Your task to perform on an android device: Toggle the flashlight Image 0: 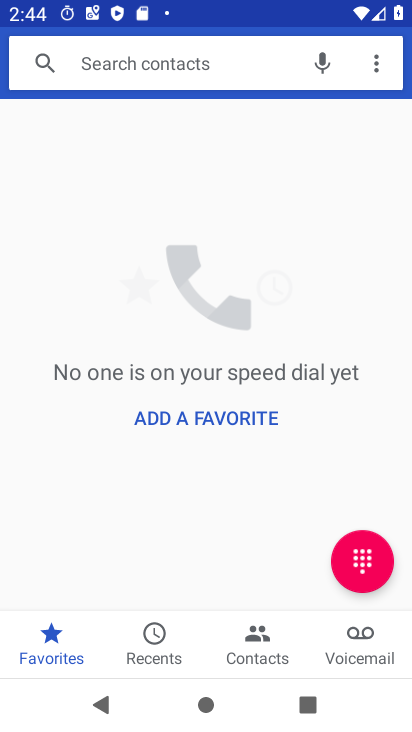
Step 0: press home button
Your task to perform on an android device: Toggle the flashlight Image 1: 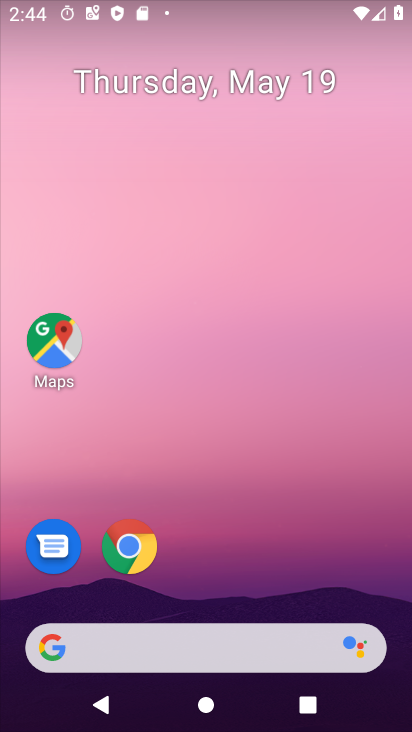
Step 1: drag from (181, 596) to (291, 103)
Your task to perform on an android device: Toggle the flashlight Image 2: 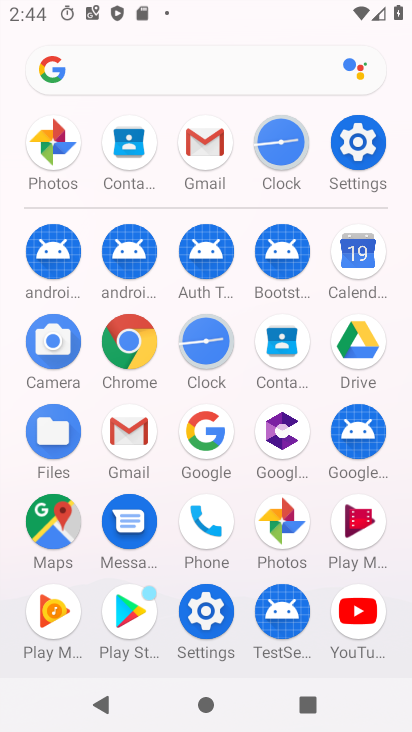
Step 2: click (369, 159)
Your task to perform on an android device: Toggle the flashlight Image 3: 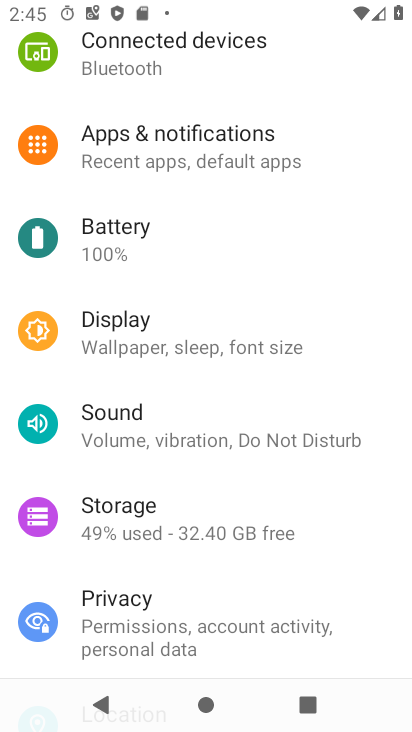
Step 3: task complete